Your task to perform on an android device: Do I have any events tomorrow? Image 0: 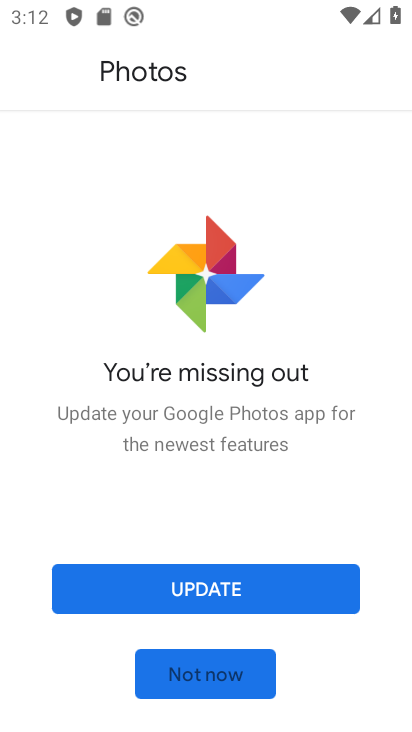
Step 0: press home button
Your task to perform on an android device: Do I have any events tomorrow? Image 1: 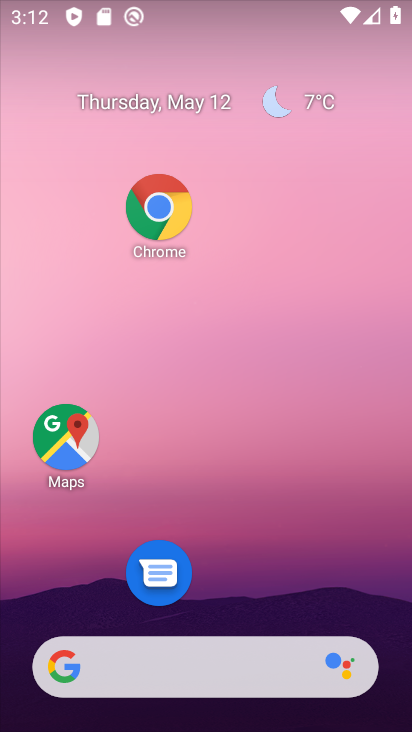
Step 1: drag from (217, 571) to (341, 16)
Your task to perform on an android device: Do I have any events tomorrow? Image 2: 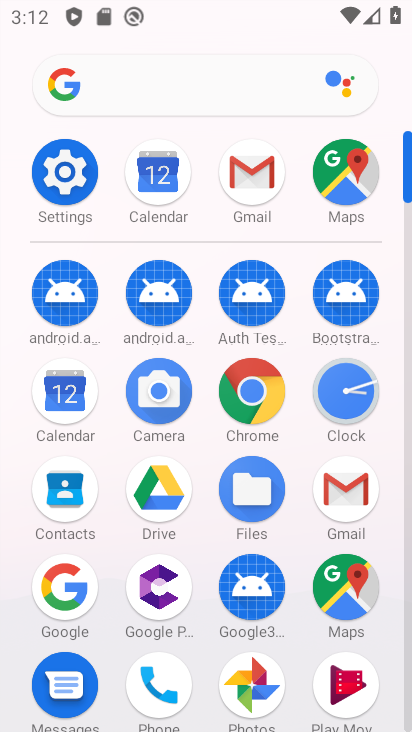
Step 2: click (50, 393)
Your task to perform on an android device: Do I have any events tomorrow? Image 3: 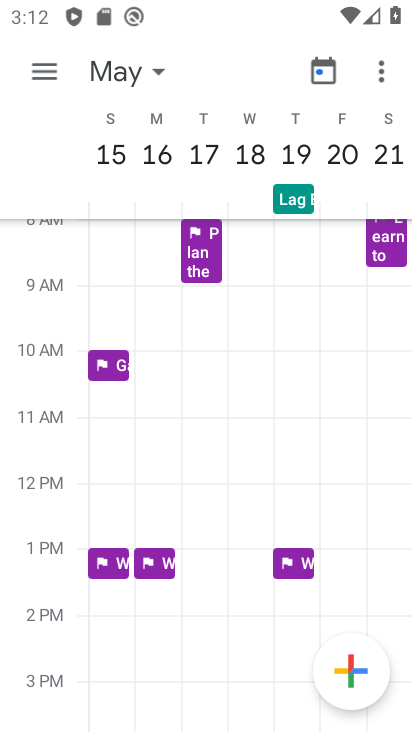
Step 3: click (60, 74)
Your task to perform on an android device: Do I have any events tomorrow? Image 4: 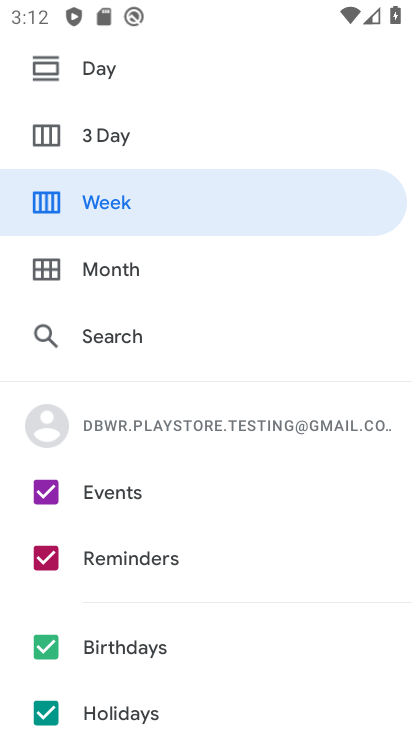
Step 4: click (143, 266)
Your task to perform on an android device: Do I have any events tomorrow? Image 5: 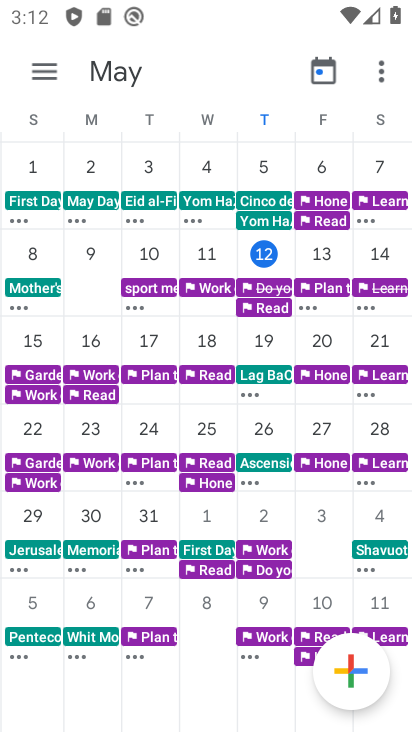
Step 5: click (27, 58)
Your task to perform on an android device: Do I have any events tomorrow? Image 6: 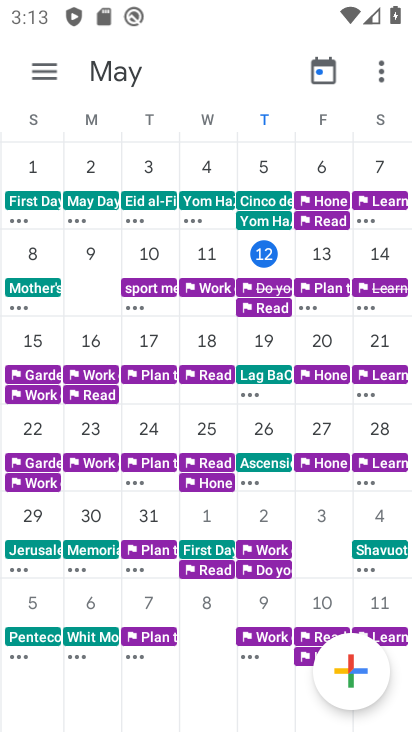
Step 6: click (254, 276)
Your task to perform on an android device: Do I have any events tomorrow? Image 7: 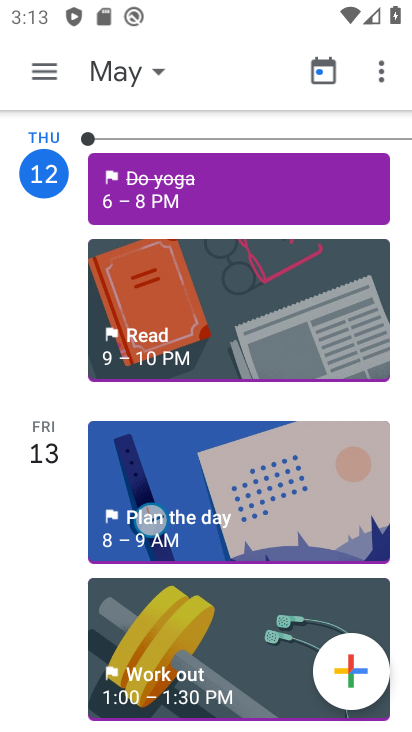
Step 7: click (44, 75)
Your task to perform on an android device: Do I have any events tomorrow? Image 8: 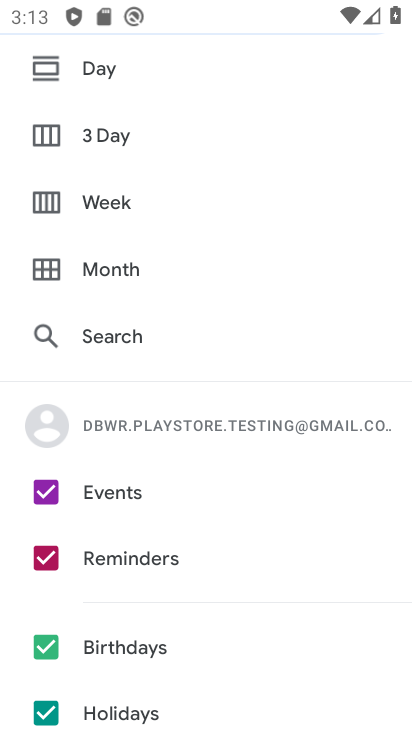
Step 8: click (143, 208)
Your task to perform on an android device: Do I have any events tomorrow? Image 9: 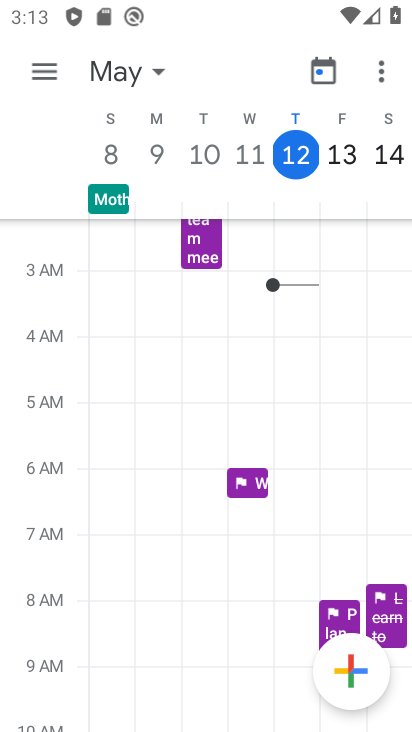
Step 9: click (36, 62)
Your task to perform on an android device: Do I have any events tomorrow? Image 10: 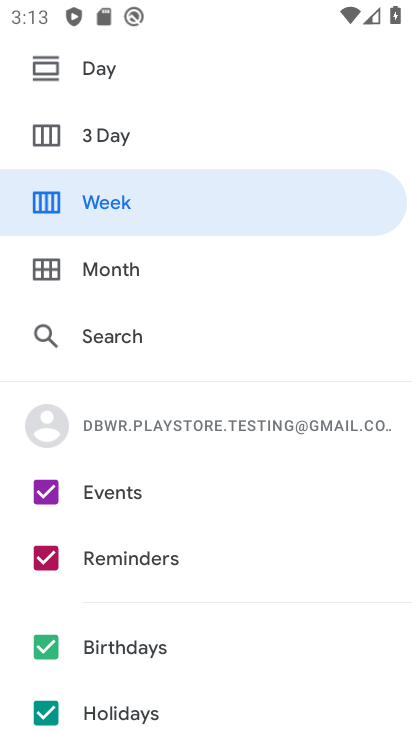
Step 10: click (141, 138)
Your task to perform on an android device: Do I have any events tomorrow? Image 11: 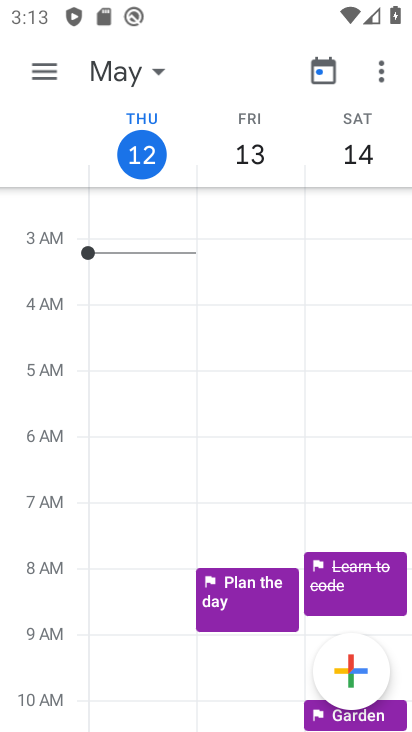
Step 11: task complete